Your task to perform on an android device: delete browsing data in the chrome app Image 0: 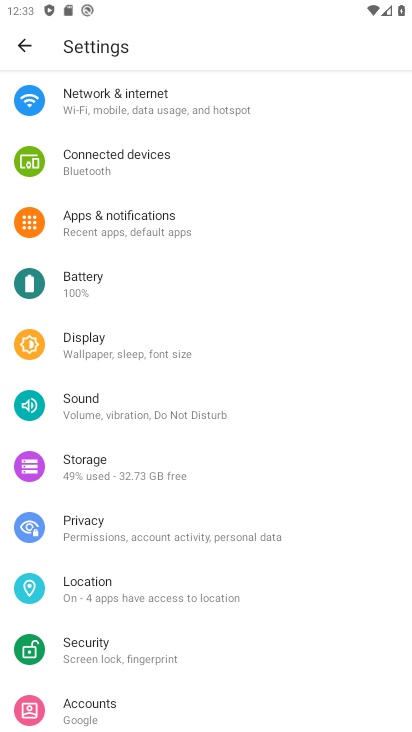
Step 0: press home button
Your task to perform on an android device: delete browsing data in the chrome app Image 1: 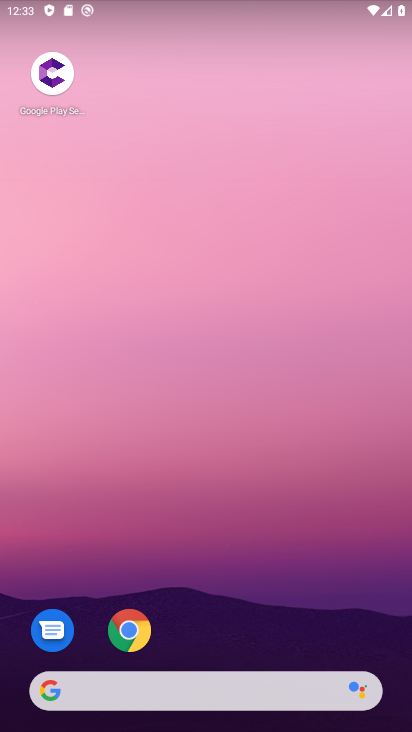
Step 1: click (115, 641)
Your task to perform on an android device: delete browsing data in the chrome app Image 2: 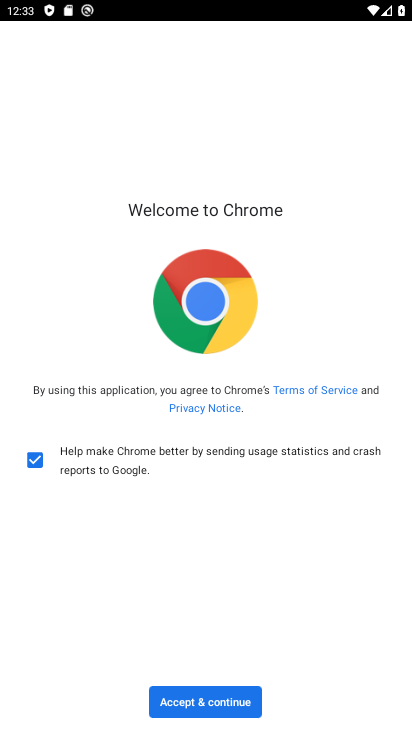
Step 2: click (200, 697)
Your task to perform on an android device: delete browsing data in the chrome app Image 3: 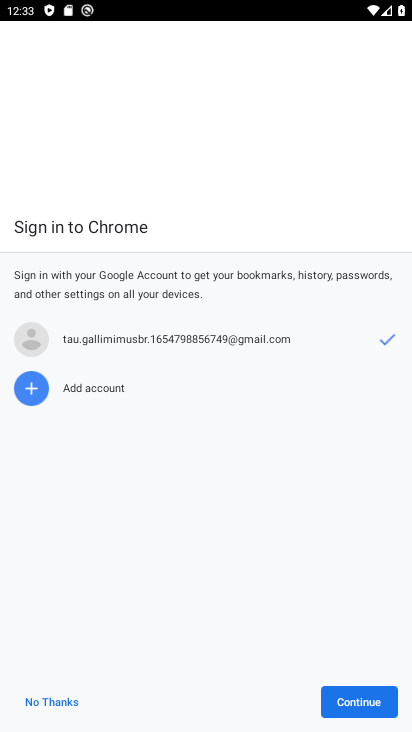
Step 3: click (356, 697)
Your task to perform on an android device: delete browsing data in the chrome app Image 4: 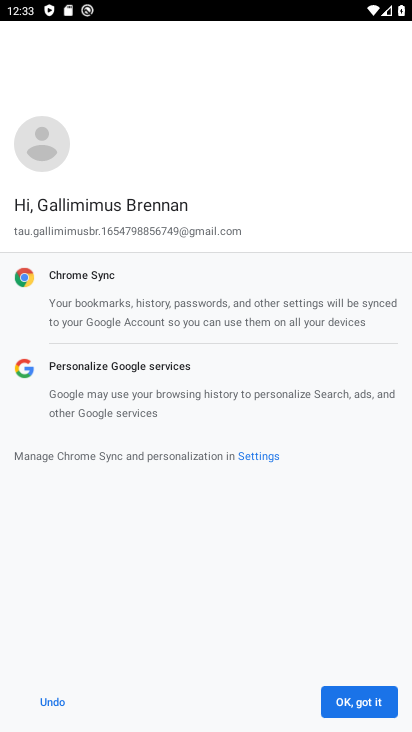
Step 4: click (342, 708)
Your task to perform on an android device: delete browsing data in the chrome app Image 5: 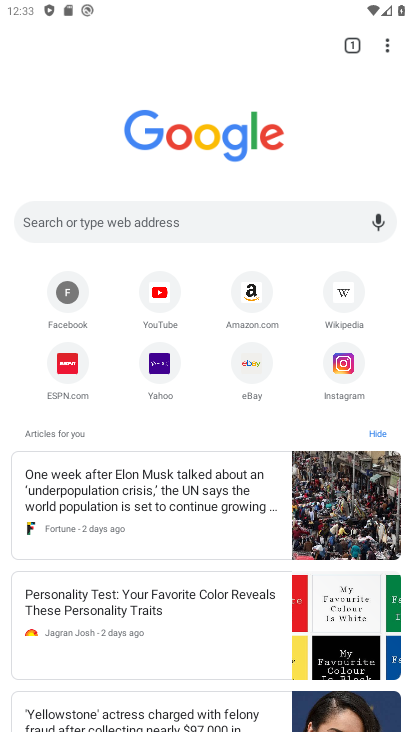
Step 5: click (382, 42)
Your task to perform on an android device: delete browsing data in the chrome app Image 6: 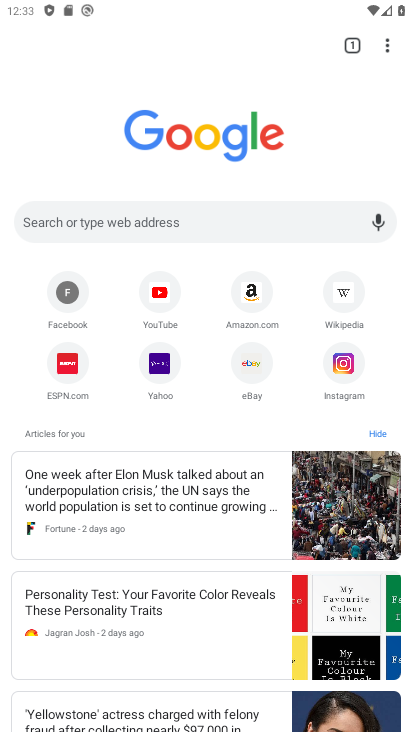
Step 6: click (385, 41)
Your task to perform on an android device: delete browsing data in the chrome app Image 7: 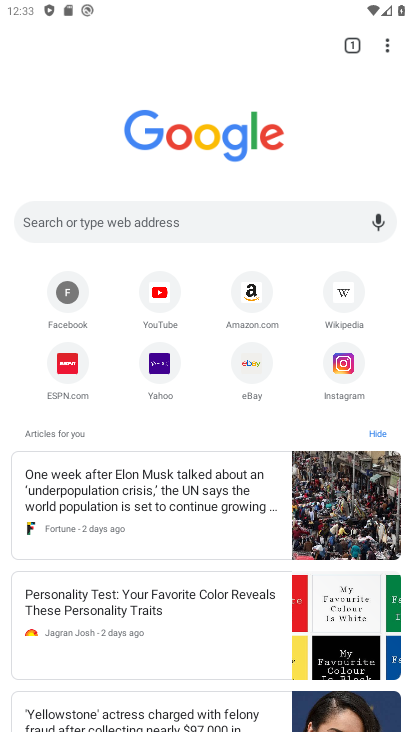
Step 7: click (389, 50)
Your task to perform on an android device: delete browsing data in the chrome app Image 8: 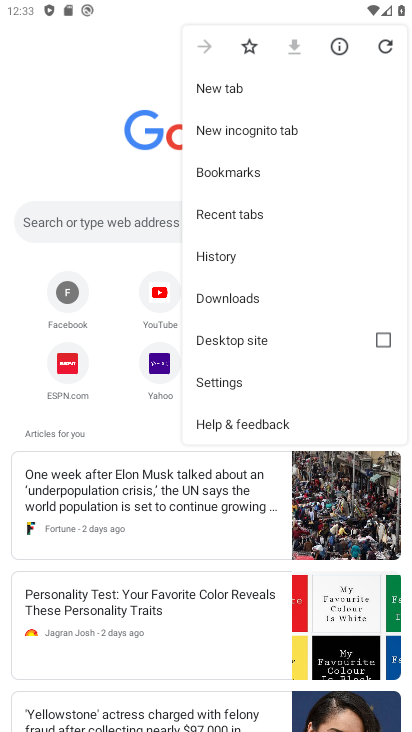
Step 8: click (229, 257)
Your task to perform on an android device: delete browsing data in the chrome app Image 9: 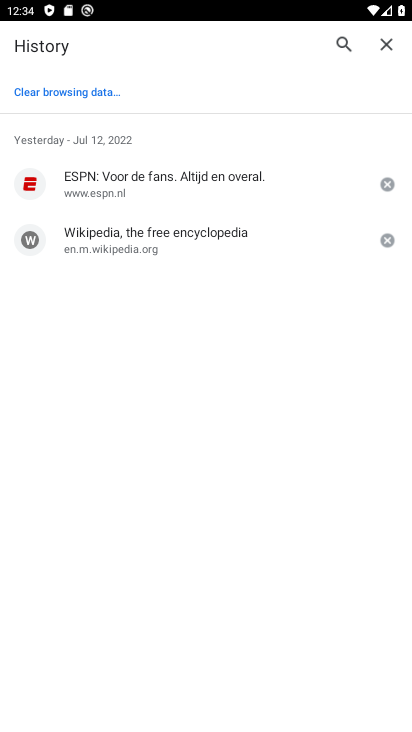
Step 9: click (45, 83)
Your task to perform on an android device: delete browsing data in the chrome app Image 10: 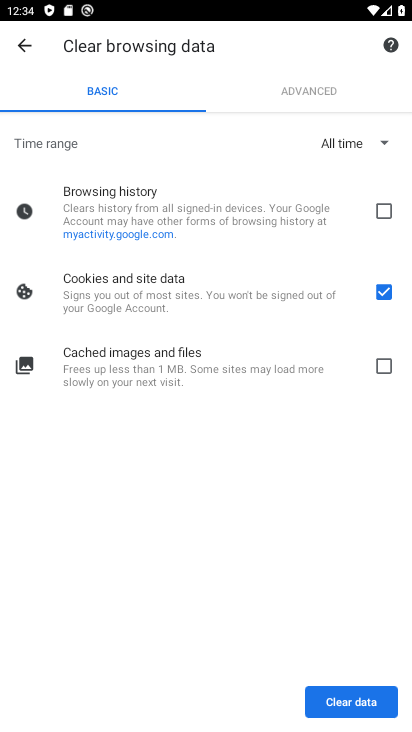
Step 10: click (377, 212)
Your task to perform on an android device: delete browsing data in the chrome app Image 11: 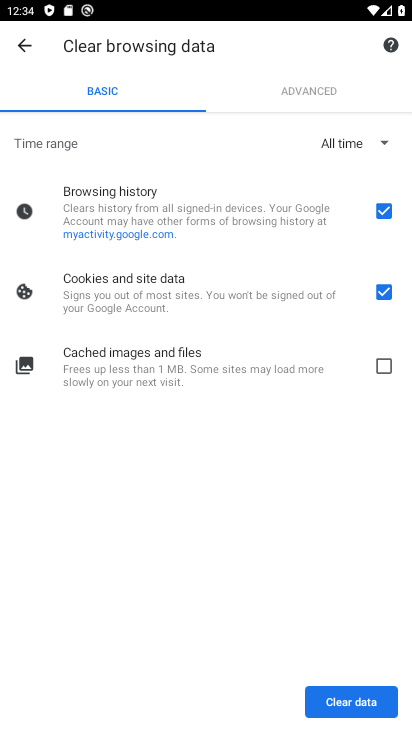
Step 11: click (386, 294)
Your task to perform on an android device: delete browsing data in the chrome app Image 12: 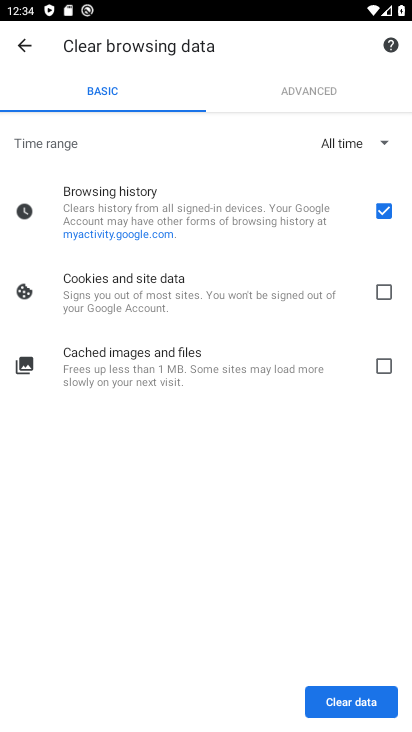
Step 12: click (325, 89)
Your task to perform on an android device: delete browsing data in the chrome app Image 13: 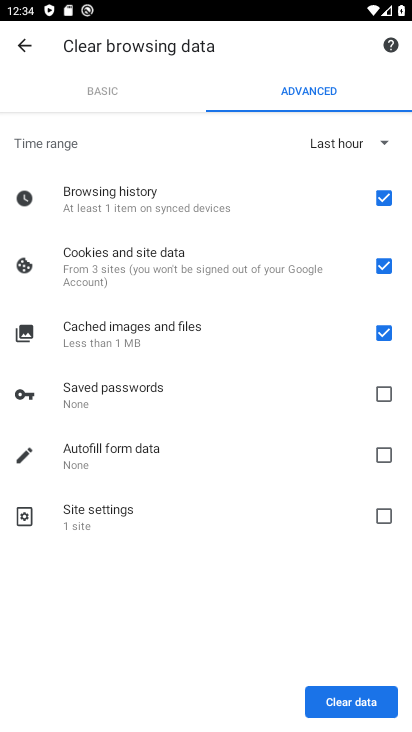
Step 13: click (91, 82)
Your task to perform on an android device: delete browsing data in the chrome app Image 14: 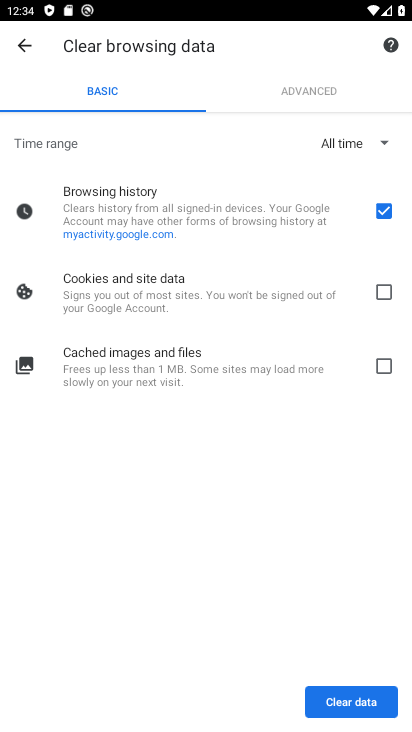
Step 14: click (326, 692)
Your task to perform on an android device: delete browsing data in the chrome app Image 15: 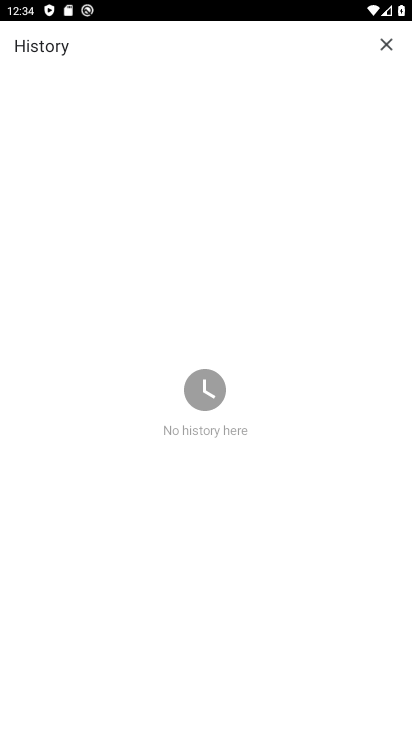
Step 15: task complete